Your task to perform on an android device: empty trash in google photos Image 0: 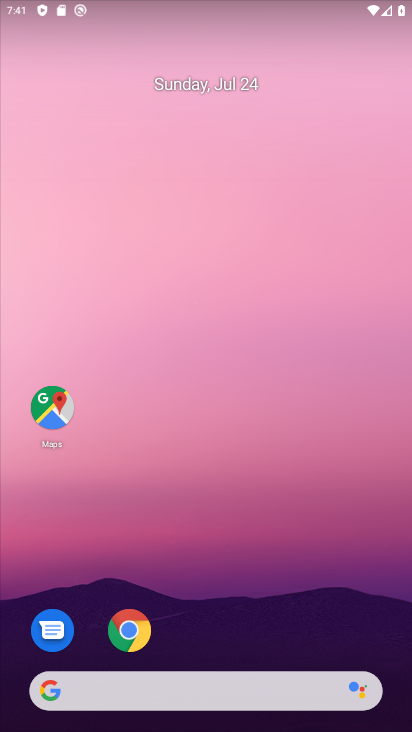
Step 0: drag from (217, 648) to (198, 108)
Your task to perform on an android device: empty trash in google photos Image 1: 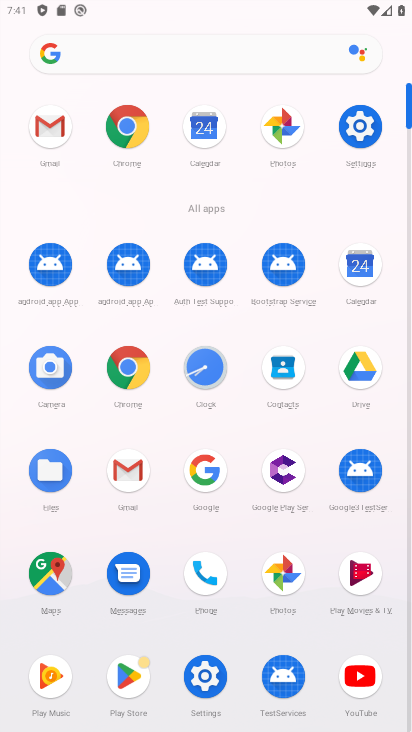
Step 1: click (265, 128)
Your task to perform on an android device: empty trash in google photos Image 2: 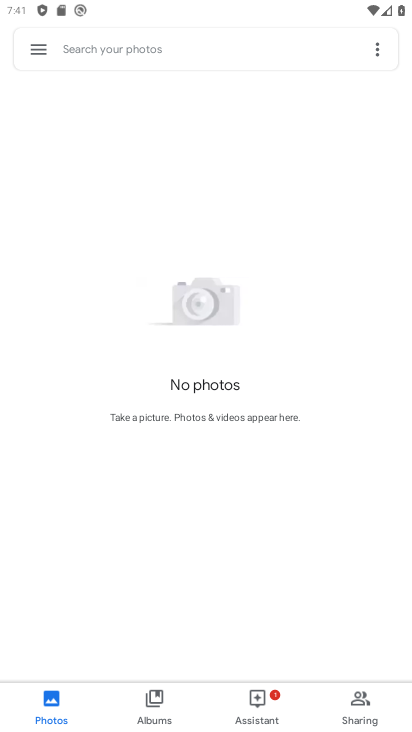
Step 2: click (41, 64)
Your task to perform on an android device: empty trash in google photos Image 3: 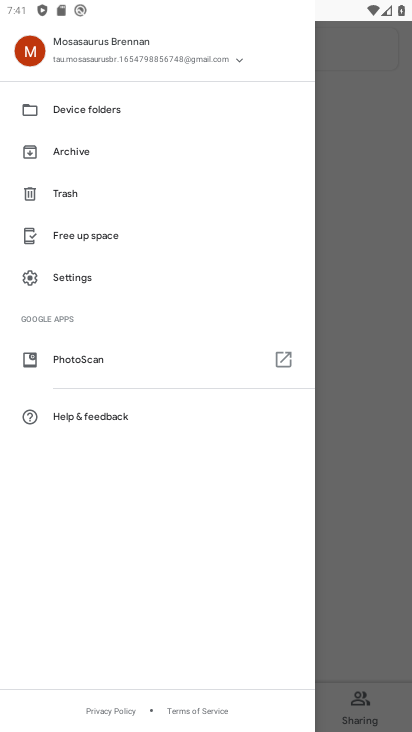
Step 3: click (56, 198)
Your task to perform on an android device: empty trash in google photos Image 4: 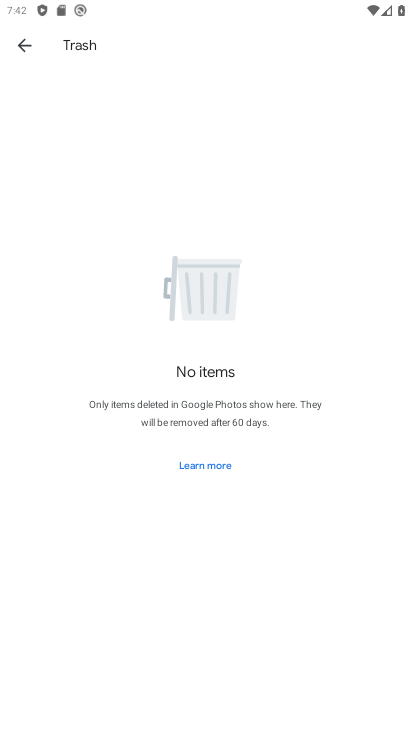
Step 4: task complete